Your task to perform on an android device: turn on the 24-hour format for clock Image 0: 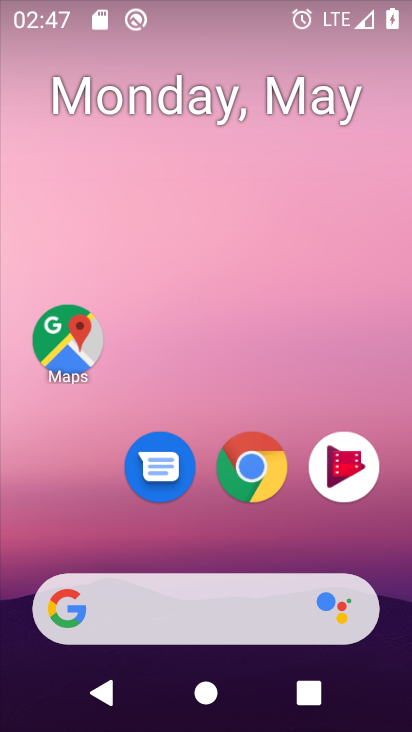
Step 0: drag from (275, 548) to (346, 179)
Your task to perform on an android device: turn on the 24-hour format for clock Image 1: 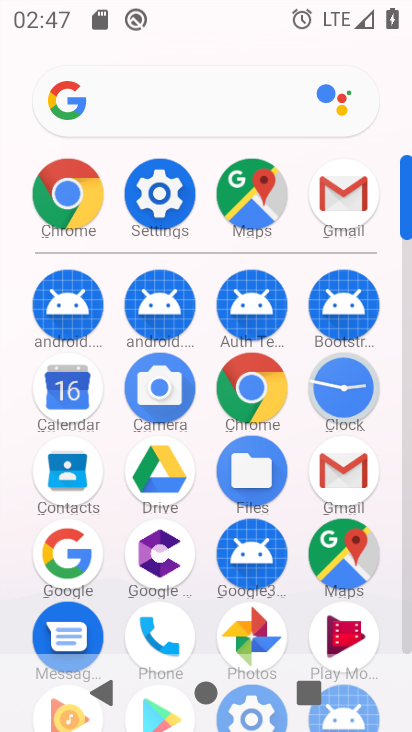
Step 1: click (331, 387)
Your task to perform on an android device: turn on the 24-hour format for clock Image 2: 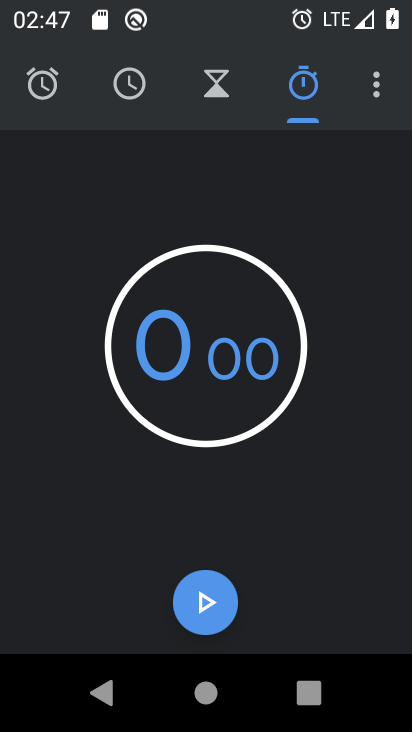
Step 2: click (371, 57)
Your task to perform on an android device: turn on the 24-hour format for clock Image 3: 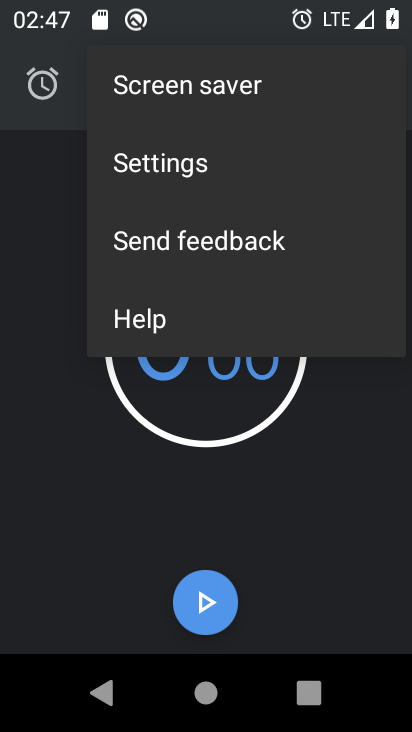
Step 3: click (365, 514)
Your task to perform on an android device: turn on the 24-hour format for clock Image 4: 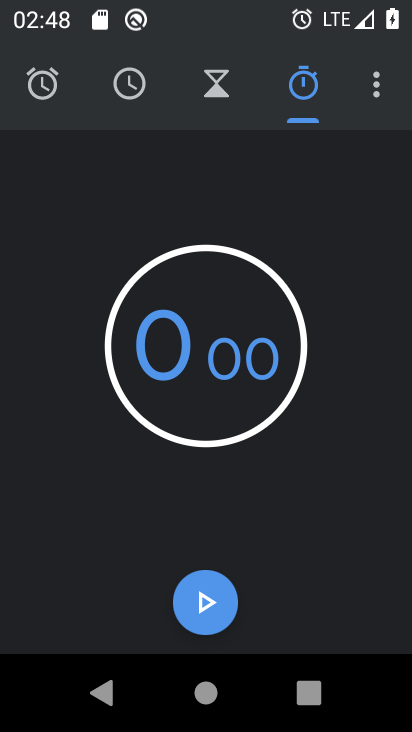
Step 4: click (191, 167)
Your task to perform on an android device: turn on the 24-hour format for clock Image 5: 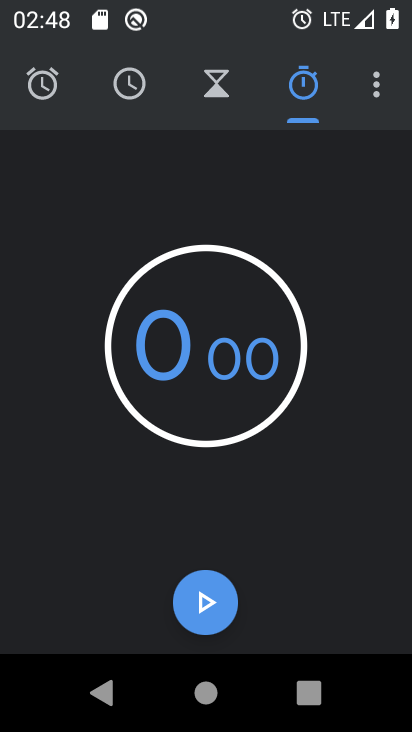
Step 5: click (360, 89)
Your task to perform on an android device: turn on the 24-hour format for clock Image 6: 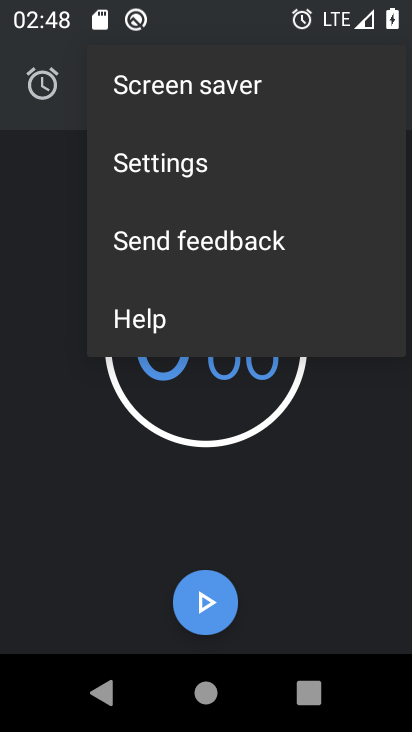
Step 6: click (250, 159)
Your task to perform on an android device: turn on the 24-hour format for clock Image 7: 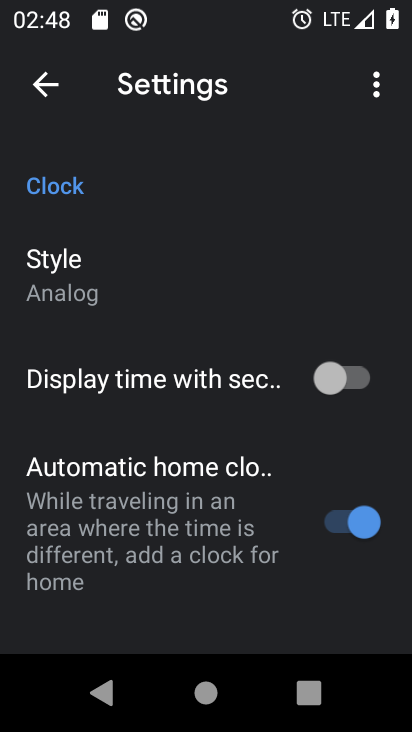
Step 7: drag from (248, 531) to (246, 275)
Your task to perform on an android device: turn on the 24-hour format for clock Image 8: 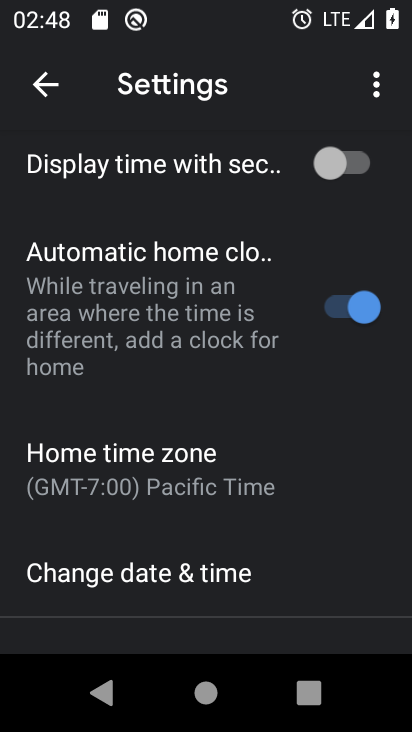
Step 8: click (178, 576)
Your task to perform on an android device: turn on the 24-hour format for clock Image 9: 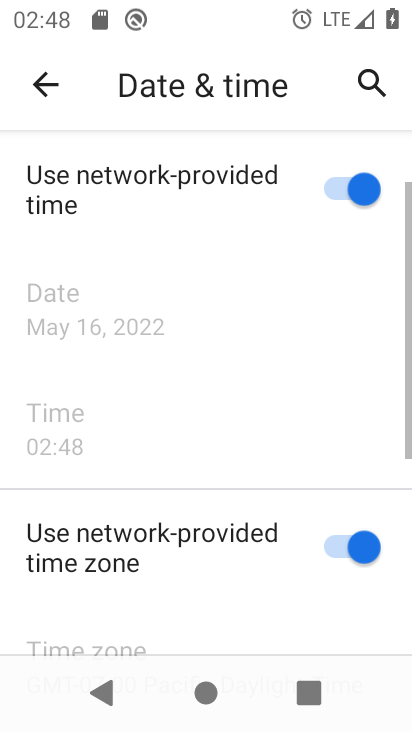
Step 9: drag from (237, 514) to (267, 253)
Your task to perform on an android device: turn on the 24-hour format for clock Image 10: 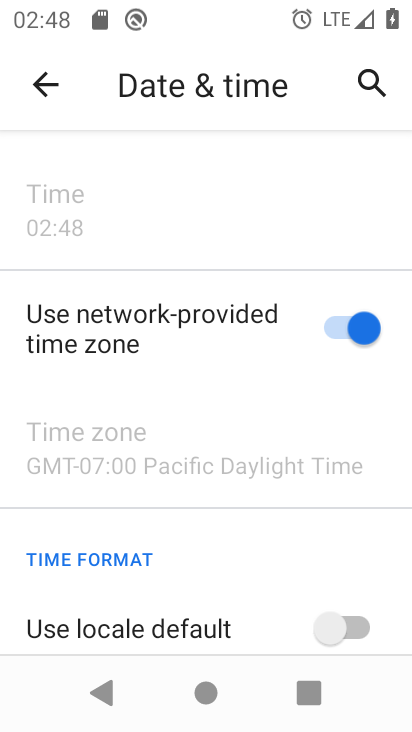
Step 10: drag from (307, 564) to (333, 334)
Your task to perform on an android device: turn on the 24-hour format for clock Image 11: 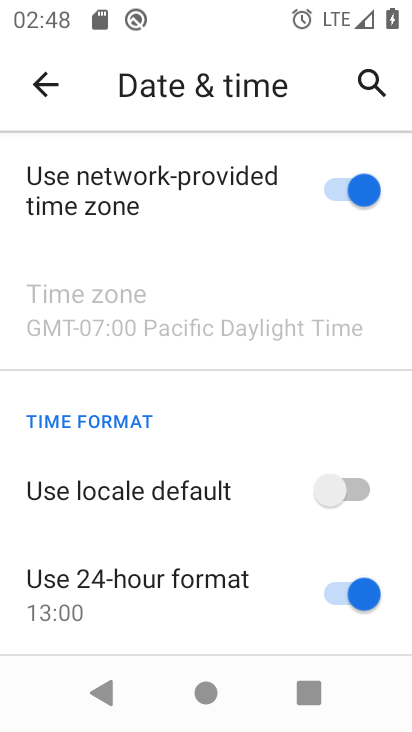
Step 11: click (354, 487)
Your task to perform on an android device: turn on the 24-hour format for clock Image 12: 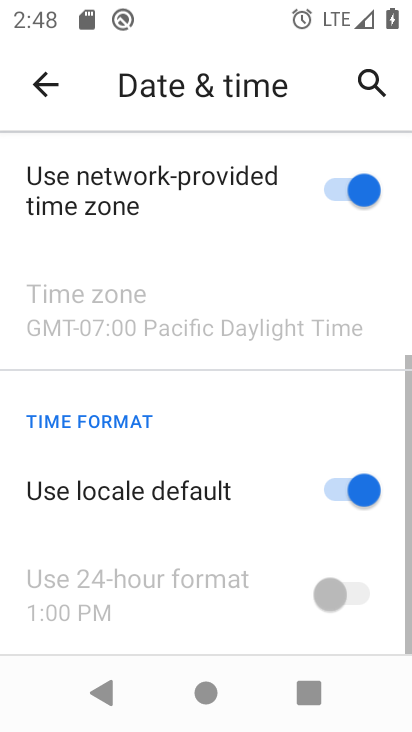
Step 12: click (339, 490)
Your task to perform on an android device: turn on the 24-hour format for clock Image 13: 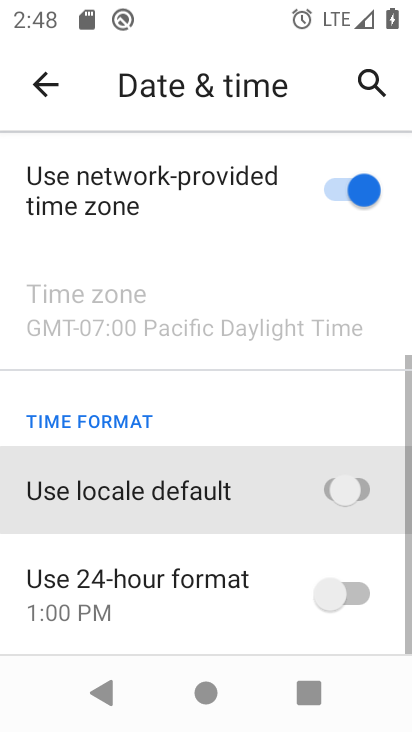
Step 13: click (346, 579)
Your task to perform on an android device: turn on the 24-hour format for clock Image 14: 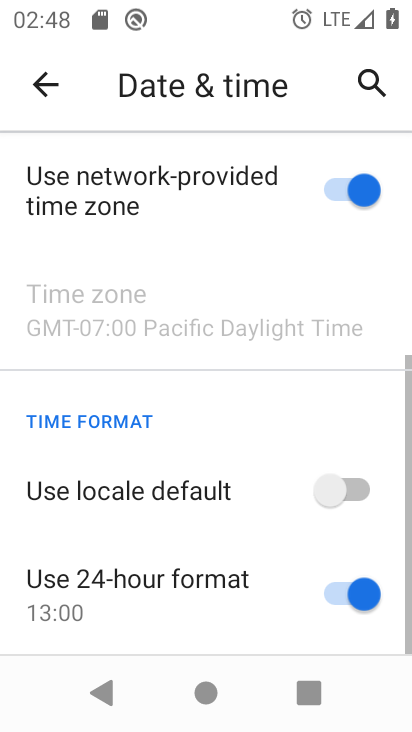
Step 14: click (360, 593)
Your task to perform on an android device: turn on the 24-hour format for clock Image 15: 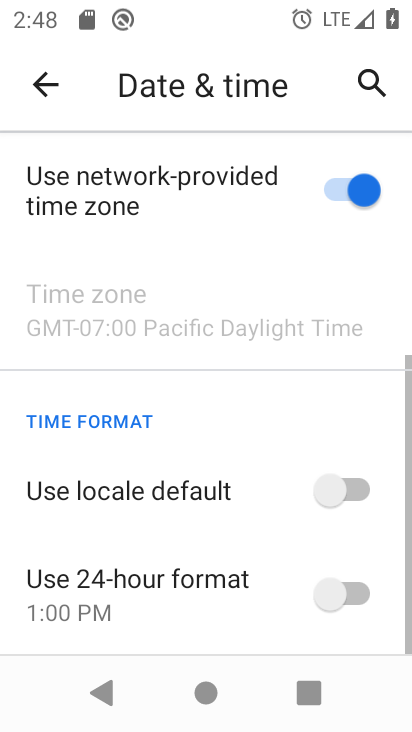
Step 15: click (361, 593)
Your task to perform on an android device: turn on the 24-hour format for clock Image 16: 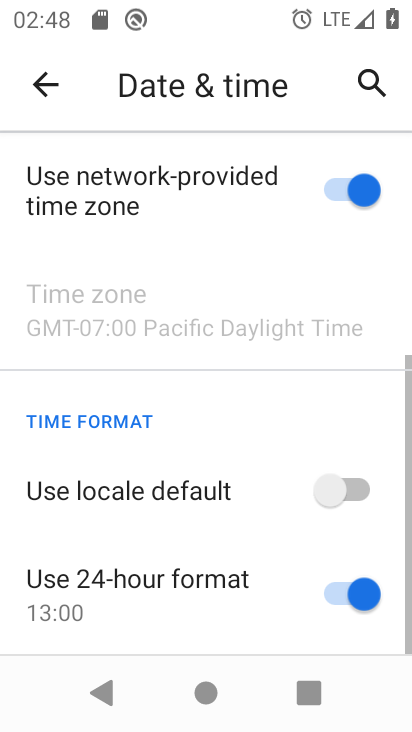
Step 16: task complete